Your task to perform on an android device: turn off picture-in-picture Image 0: 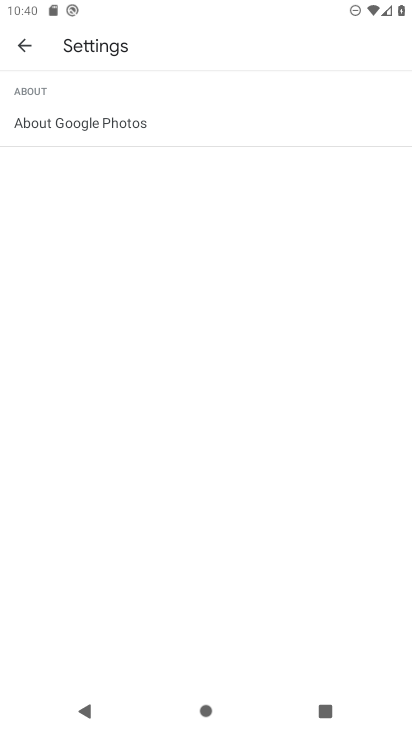
Step 0: press home button
Your task to perform on an android device: turn off picture-in-picture Image 1: 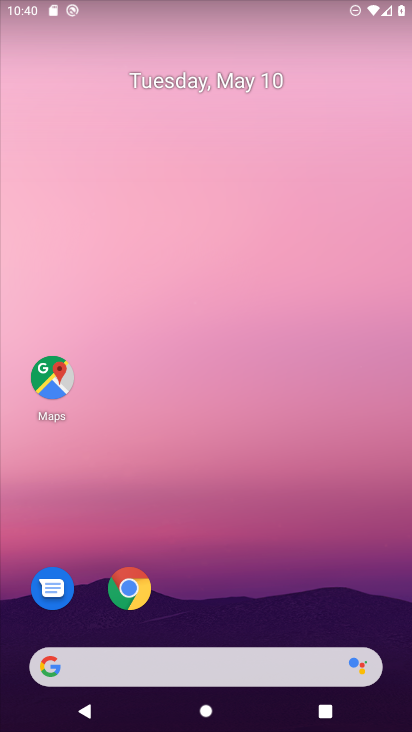
Step 1: drag from (200, 601) to (211, 145)
Your task to perform on an android device: turn off picture-in-picture Image 2: 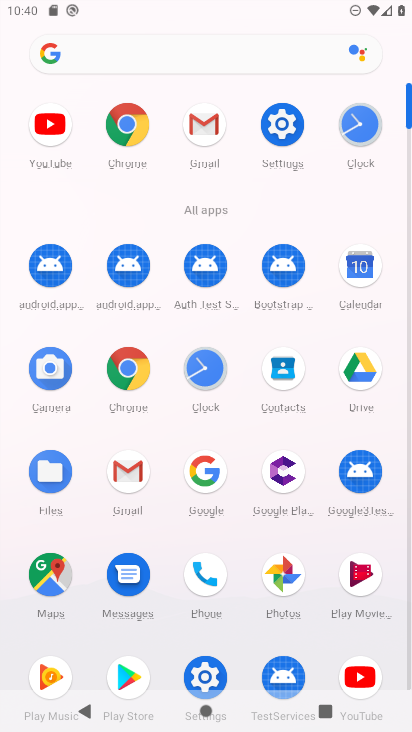
Step 2: click (123, 142)
Your task to perform on an android device: turn off picture-in-picture Image 3: 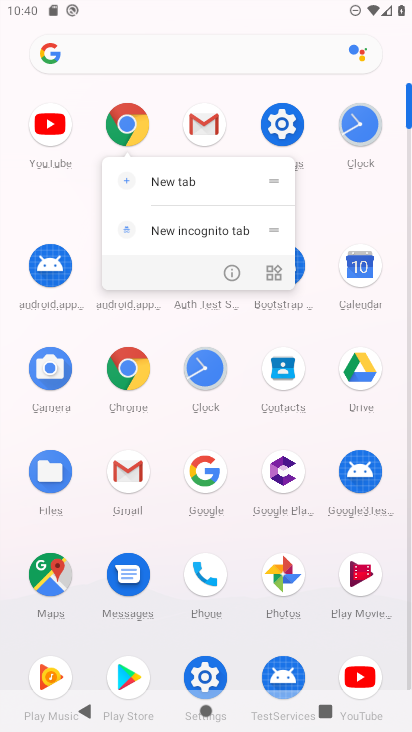
Step 3: click (122, 127)
Your task to perform on an android device: turn off picture-in-picture Image 4: 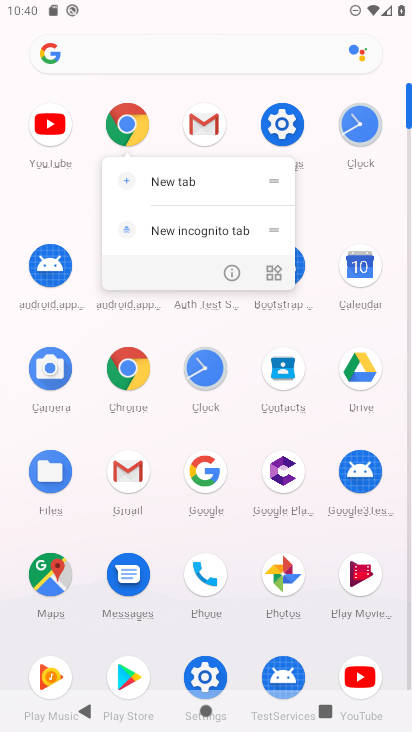
Step 4: click (233, 262)
Your task to perform on an android device: turn off picture-in-picture Image 5: 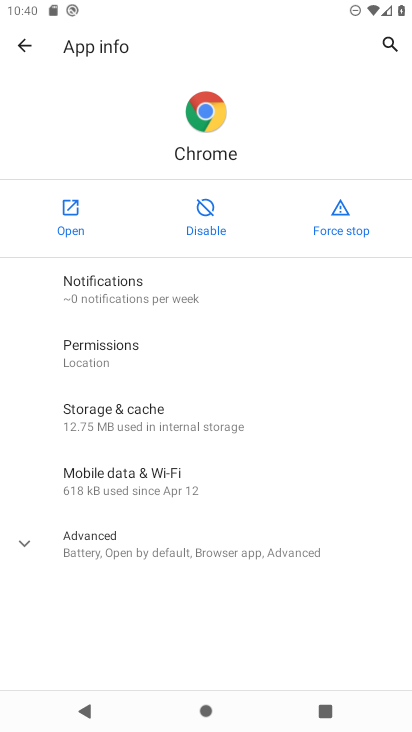
Step 5: click (141, 551)
Your task to perform on an android device: turn off picture-in-picture Image 6: 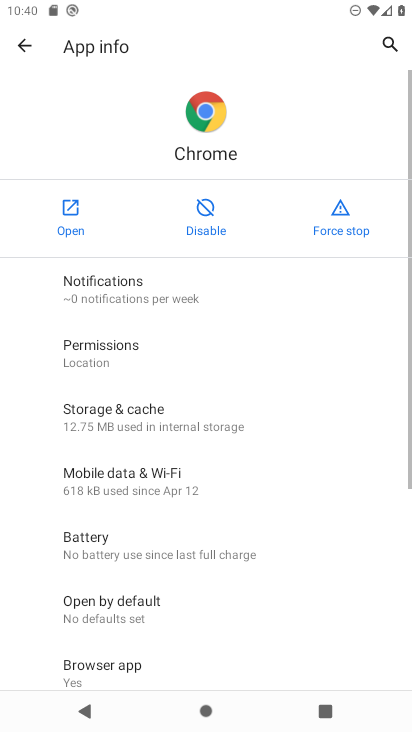
Step 6: drag from (170, 633) to (227, 296)
Your task to perform on an android device: turn off picture-in-picture Image 7: 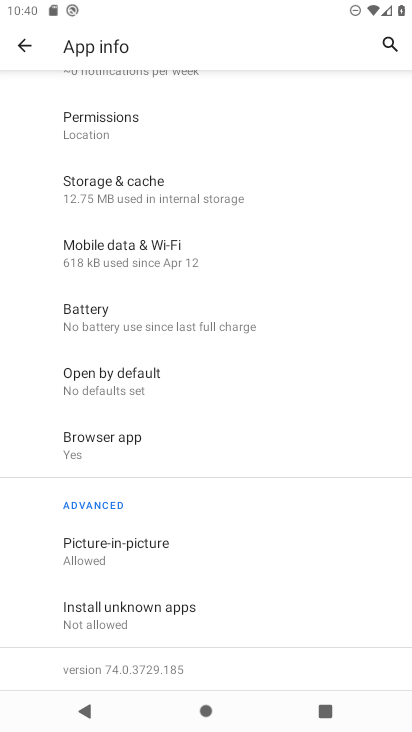
Step 7: drag from (197, 617) to (201, 382)
Your task to perform on an android device: turn off picture-in-picture Image 8: 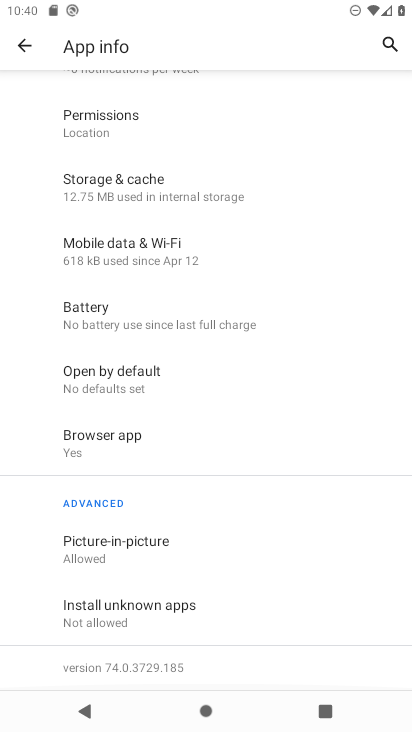
Step 8: click (118, 541)
Your task to perform on an android device: turn off picture-in-picture Image 9: 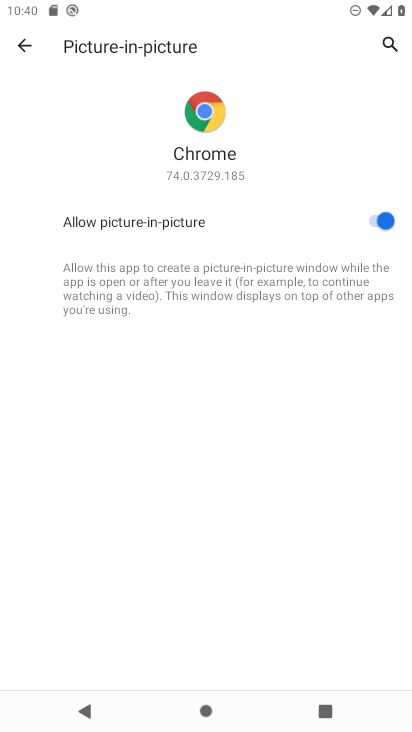
Step 9: click (373, 209)
Your task to perform on an android device: turn off picture-in-picture Image 10: 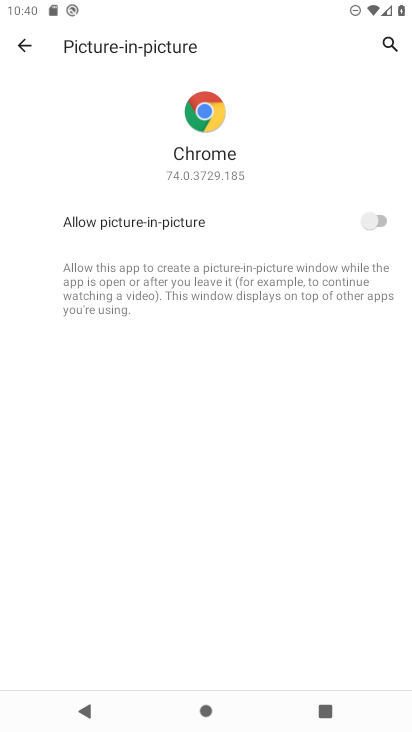
Step 10: task complete